Your task to perform on an android device: visit the assistant section in the google photos Image 0: 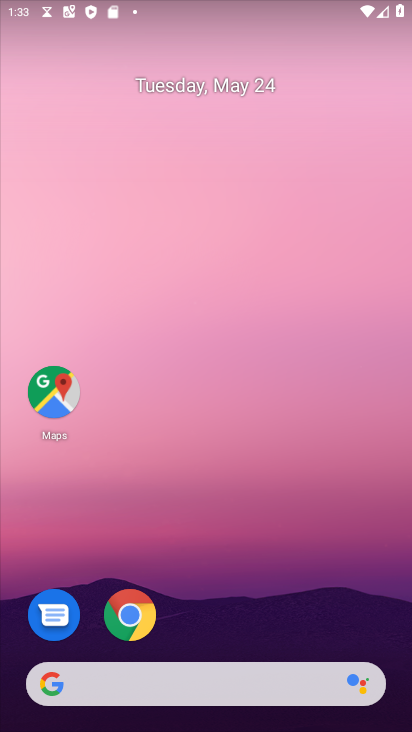
Step 0: press home button
Your task to perform on an android device: visit the assistant section in the google photos Image 1: 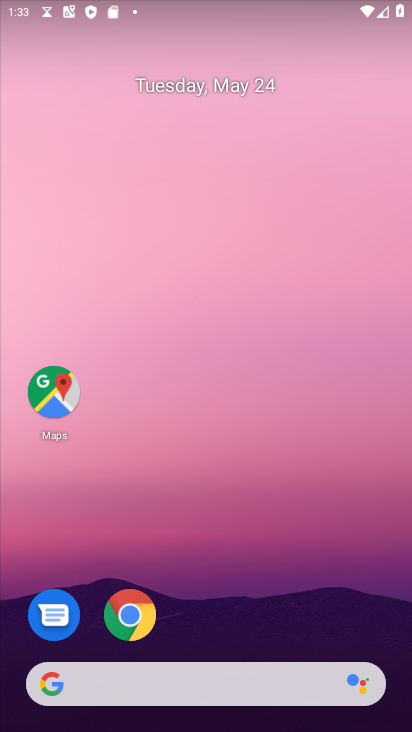
Step 1: drag from (214, 640) to (214, 17)
Your task to perform on an android device: visit the assistant section in the google photos Image 2: 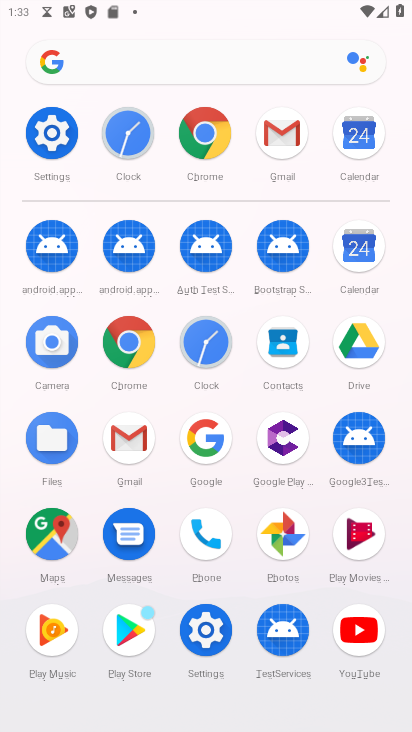
Step 2: click (283, 530)
Your task to perform on an android device: visit the assistant section in the google photos Image 3: 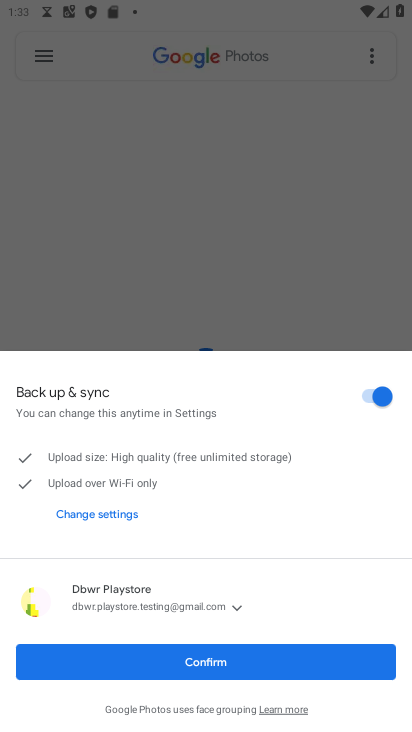
Step 3: click (215, 660)
Your task to perform on an android device: visit the assistant section in the google photos Image 4: 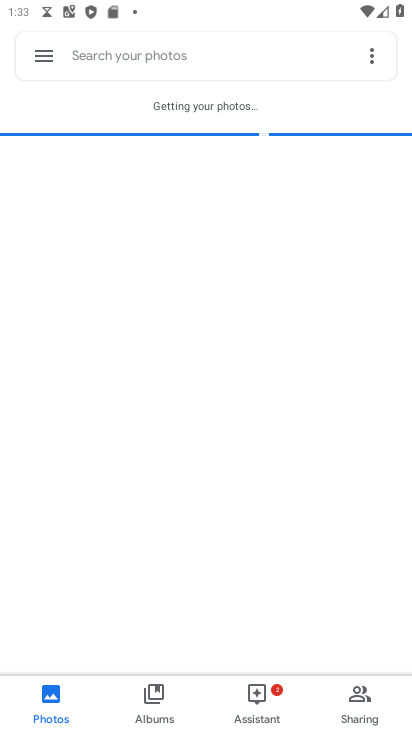
Step 4: click (256, 687)
Your task to perform on an android device: visit the assistant section in the google photos Image 5: 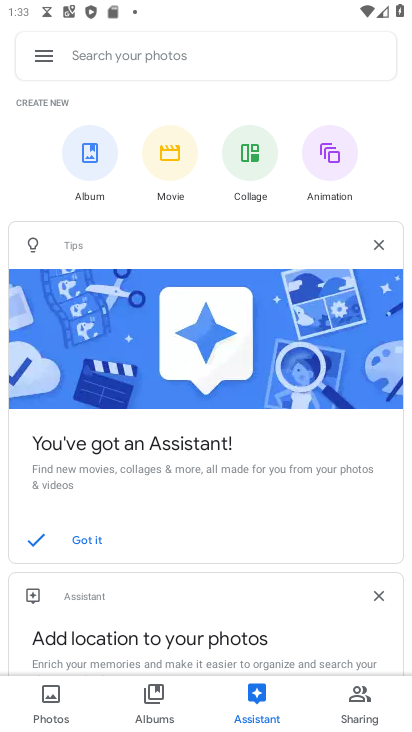
Step 5: task complete